Your task to perform on an android device: What's the price of the LG TV? Image 0: 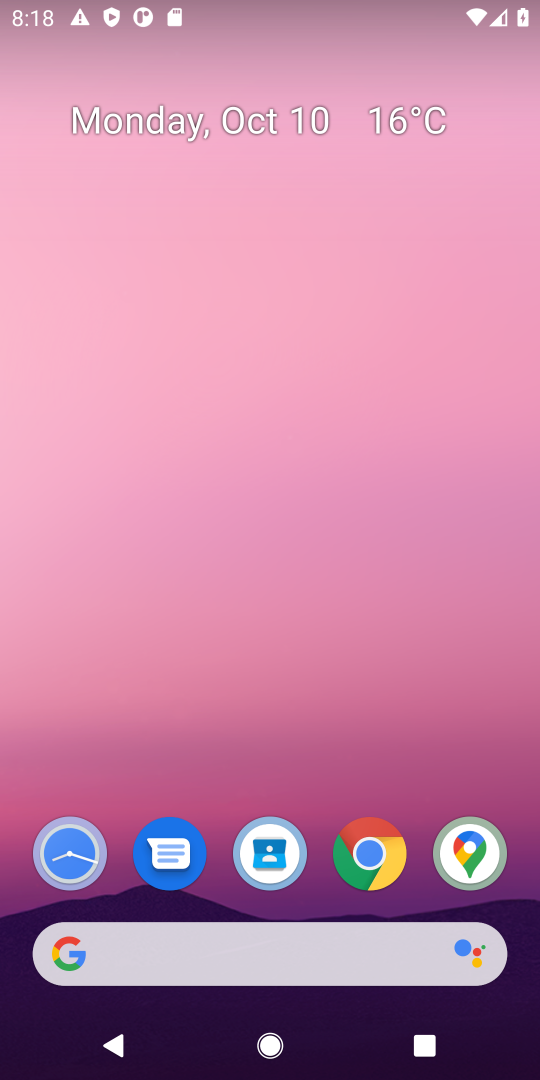
Step 0: drag from (313, 891) to (240, 2)
Your task to perform on an android device: What's the price of the LG TV? Image 1: 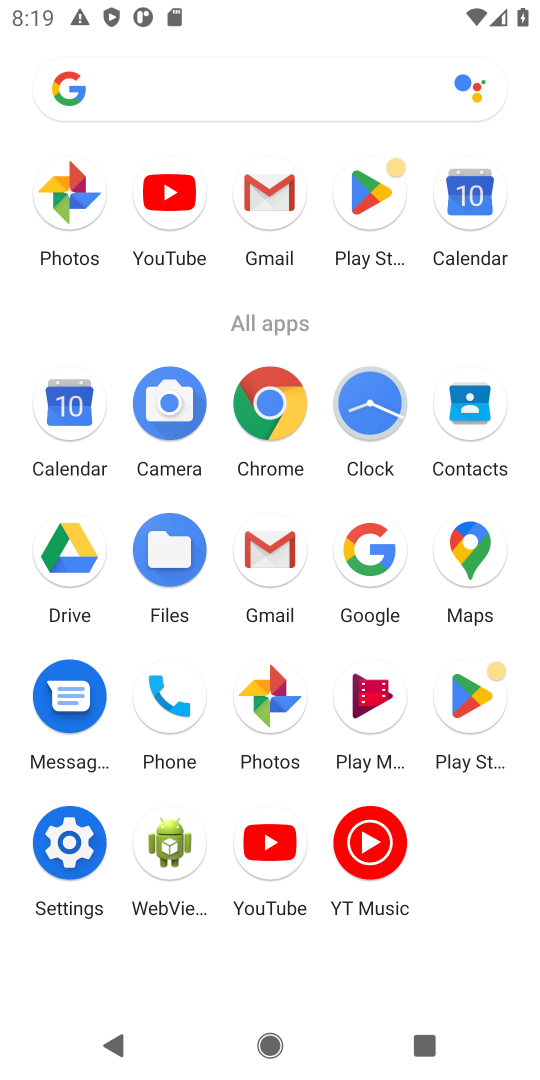
Step 1: click (382, 544)
Your task to perform on an android device: What's the price of the LG TV? Image 2: 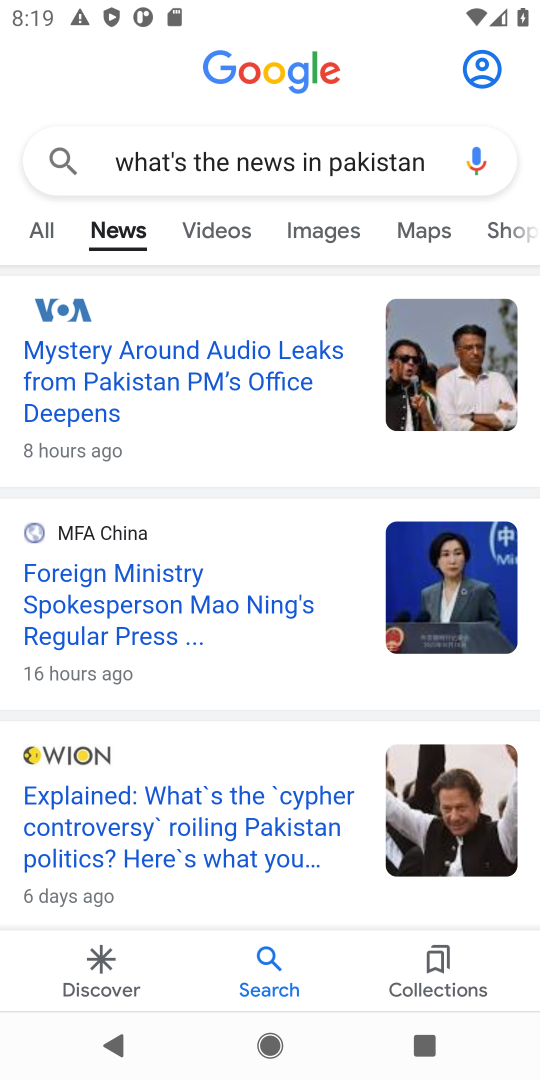
Step 2: click (392, 162)
Your task to perform on an android device: What's the price of the LG TV? Image 3: 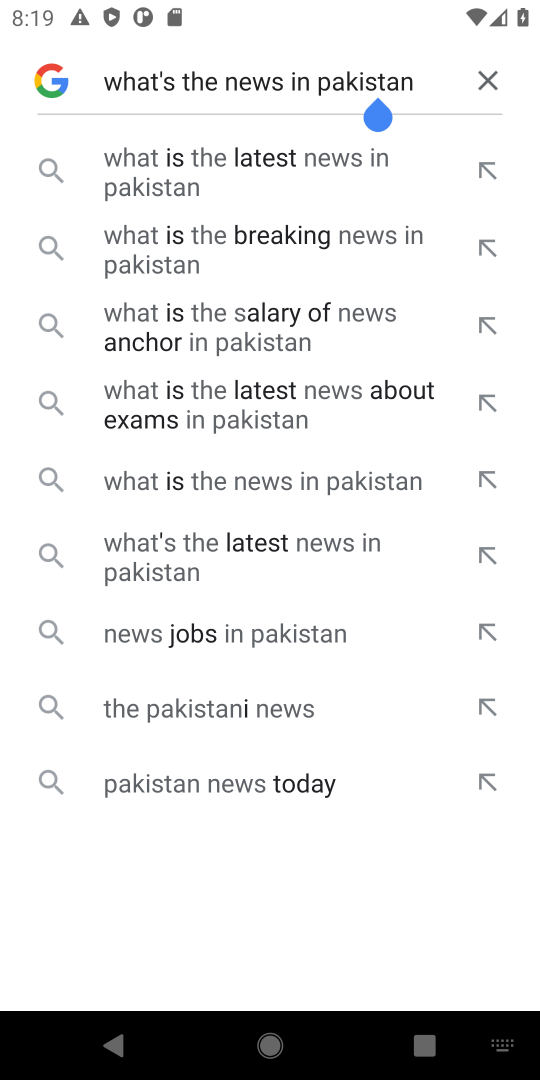
Step 3: click (494, 73)
Your task to perform on an android device: What's the price of the LG TV? Image 4: 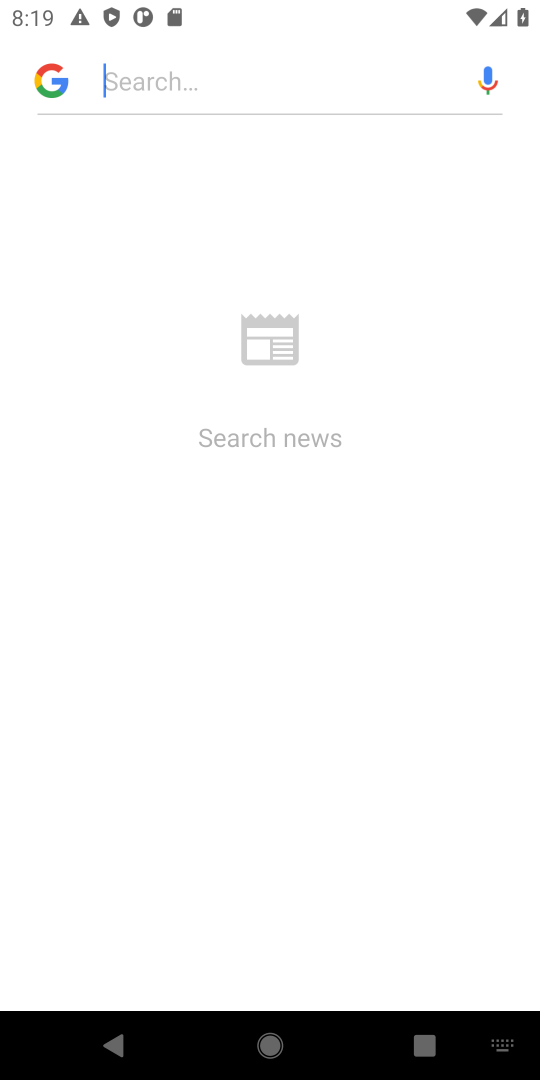
Step 4: type "What's the price of the LG TV?"
Your task to perform on an android device: What's the price of the LG TV? Image 5: 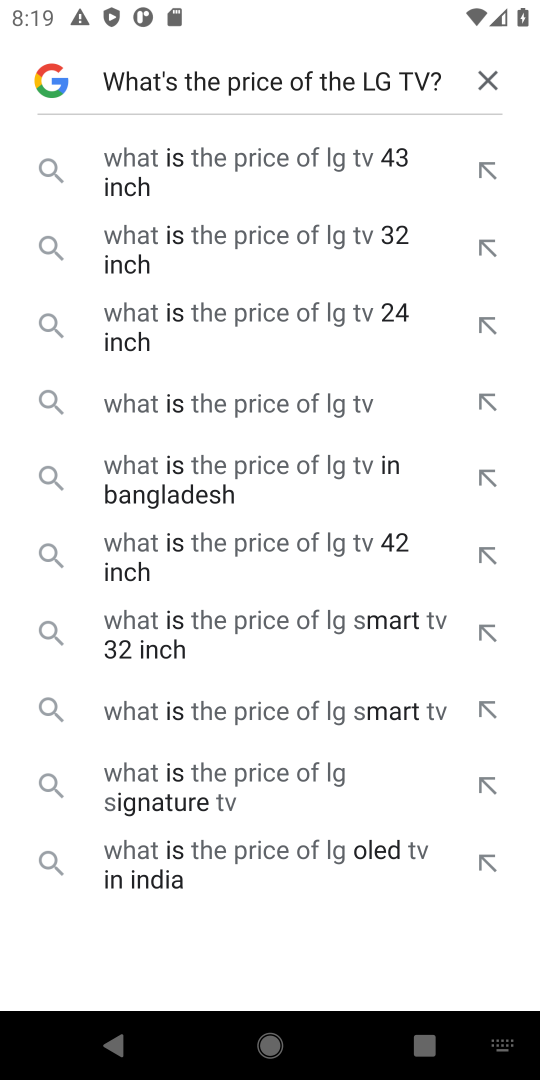
Step 5: type ""
Your task to perform on an android device: What's the price of the LG TV? Image 6: 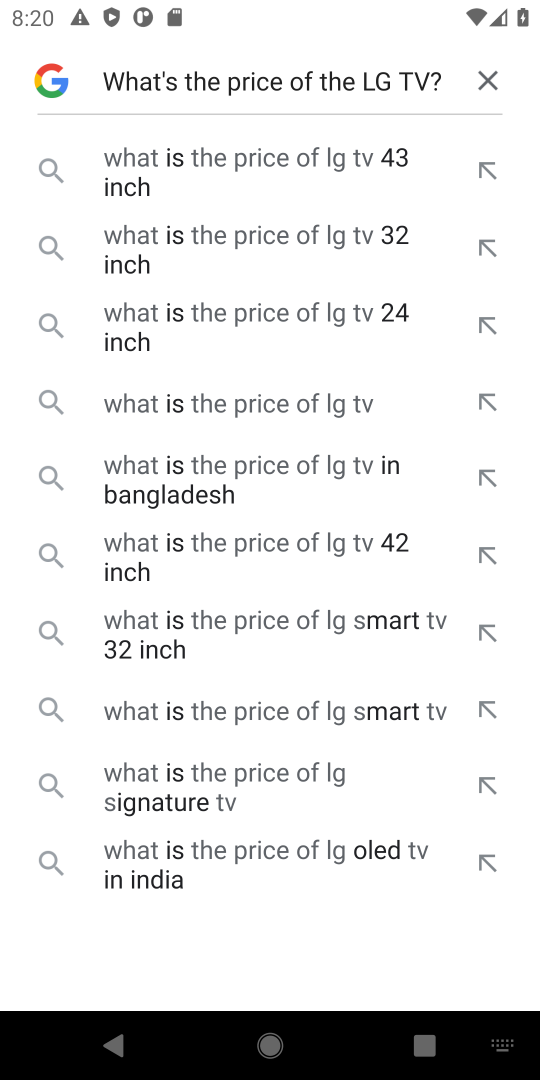
Step 6: click (311, 407)
Your task to perform on an android device: What's the price of the LG TV? Image 7: 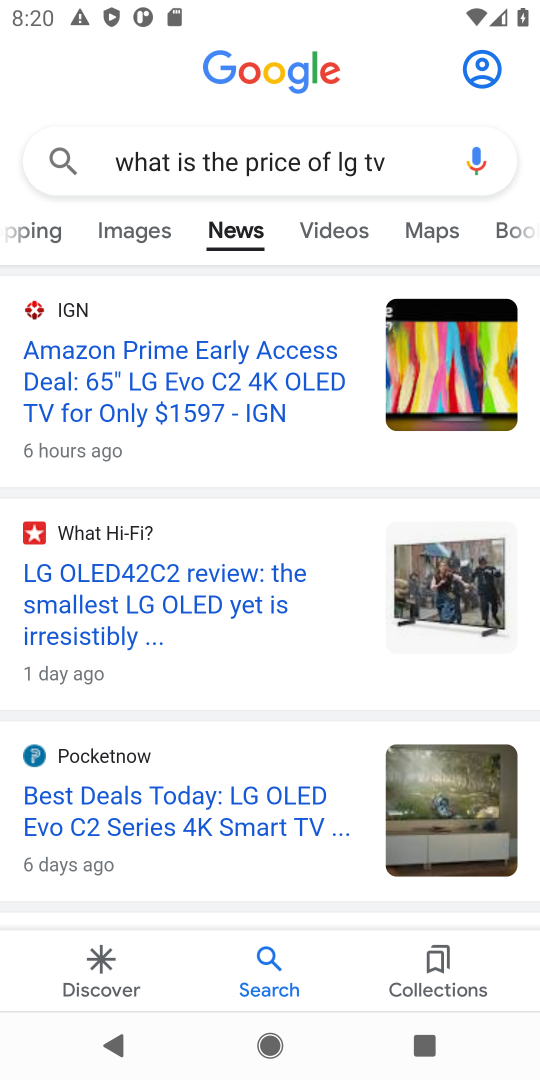
Step 7: drag from (35, 223) to (330, 241)
Your task to perform on an android device: What's the price of the LG TV? Image 8: 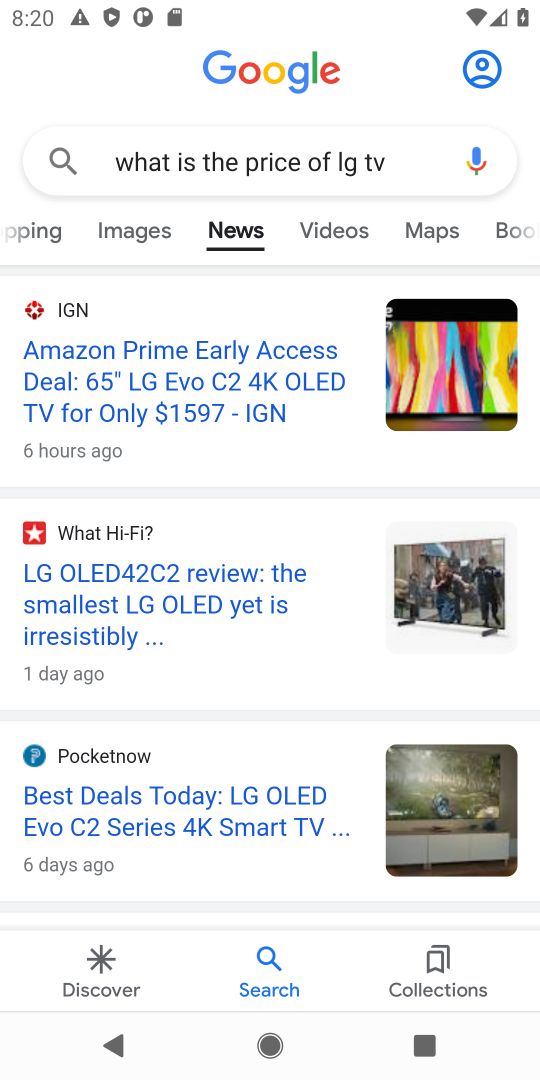
Step 8: drag from (43, 231) to (408, 244)
Your task to perform on an android device: What's the price of the LG TV? Image 9: 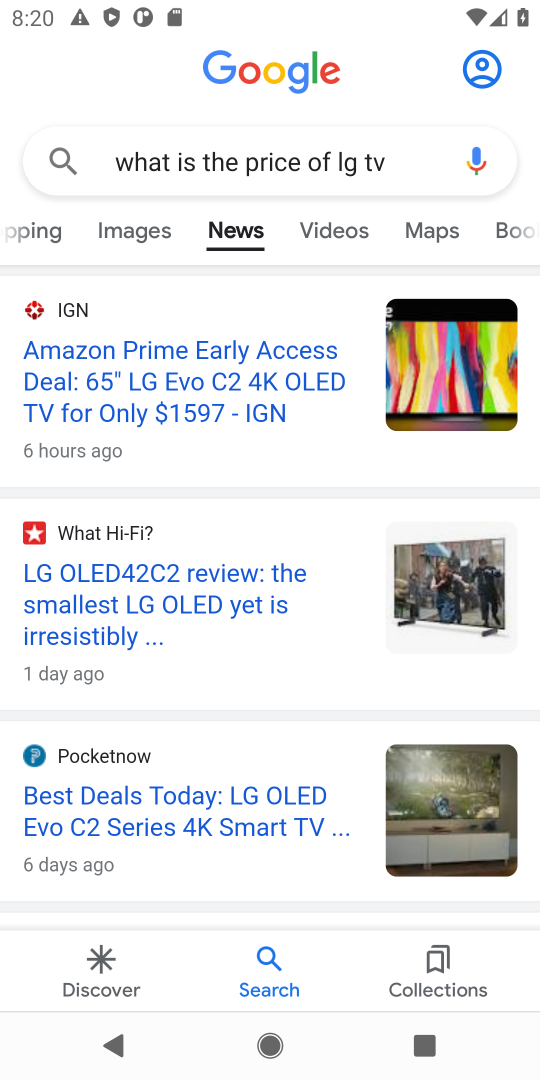
Step 9: drag from (48, 228) to (390, 225)
Your task to perform on an android device: What's the price of the LG TV? Image 10: 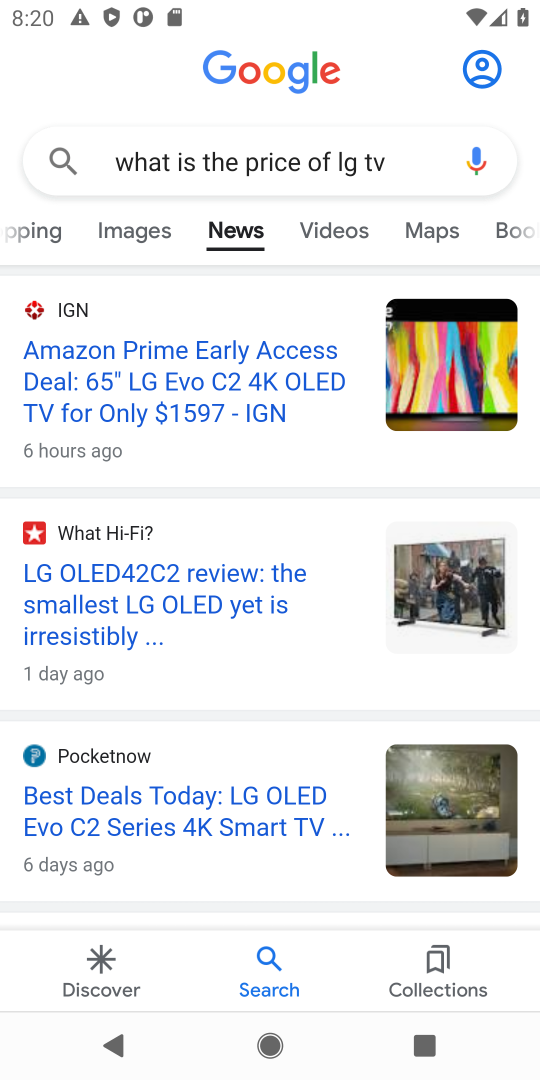
Step 10: click (43, 229)
Your task to perform on an android device: What's the price of the LG TV? Image 11: 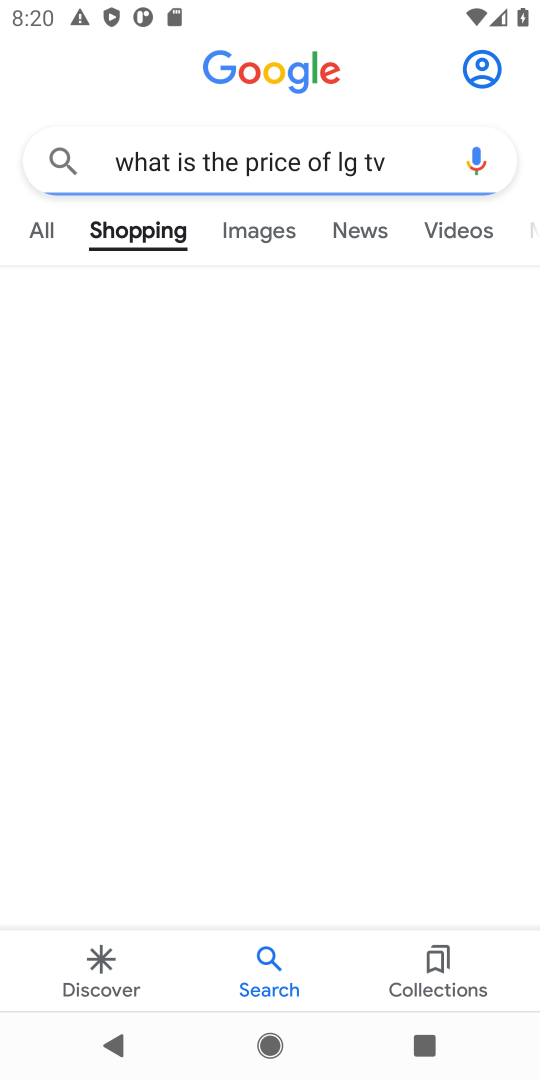
Step 11: click (45, 219)
Your task to perform on an android device: What's the price of the LG TV? Image 12: 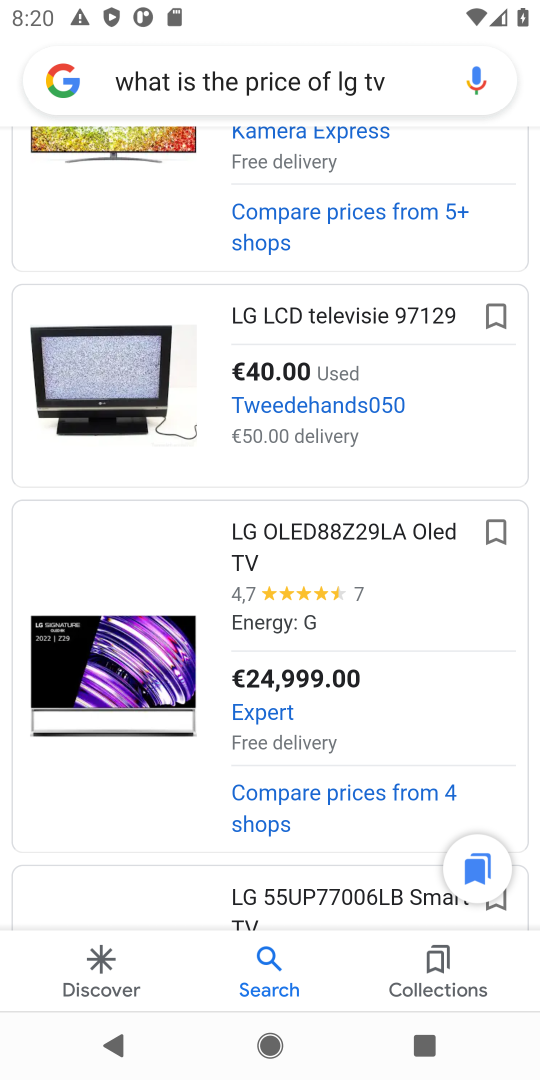
Step 12: task complete